Your task to perform on an android device: create a new album in the google photos Image 0: 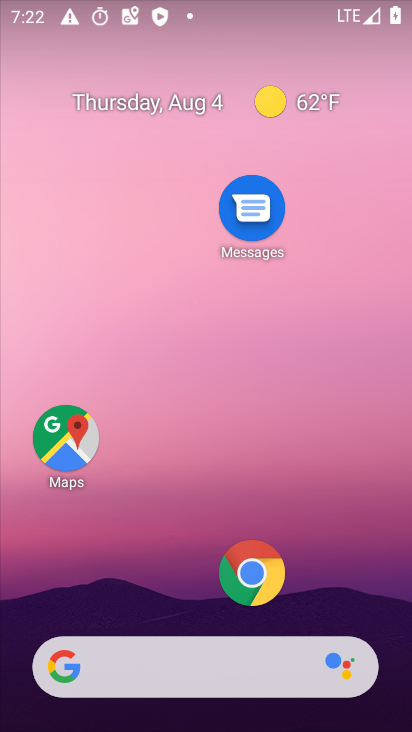
Step 0: press home button
Your task to perform on an android device: create a new album in the google photos Image 1: 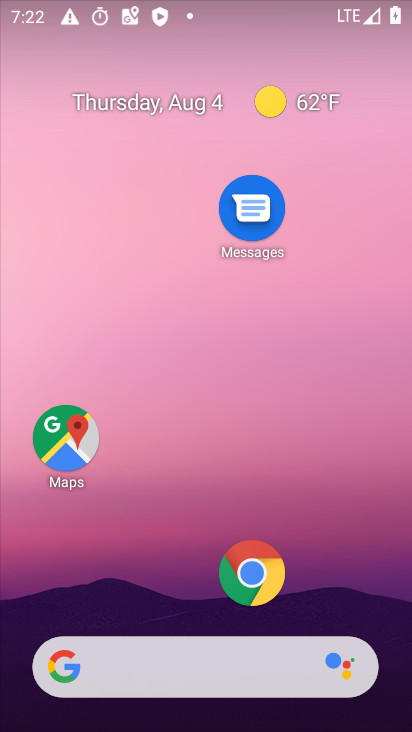
Step 1: drag from (163, 610) to (145, 151)
Your task to perform on an android device: create a new album in the google photos Image 2: 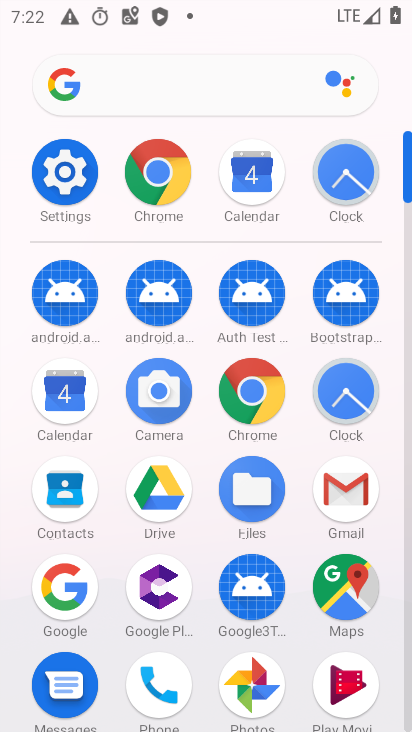
Step 2: click (235, 683)
Your task to perform on an android device: create a new album in the google photos Image 3: 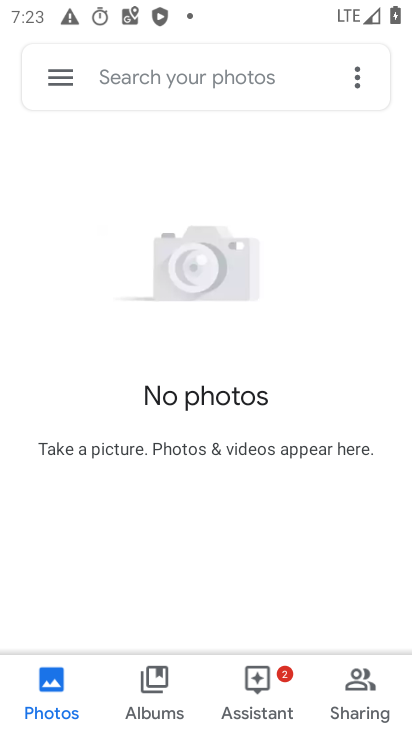
Step 3: task complete